Your task to perform on an android device: Open eBay Image 0: 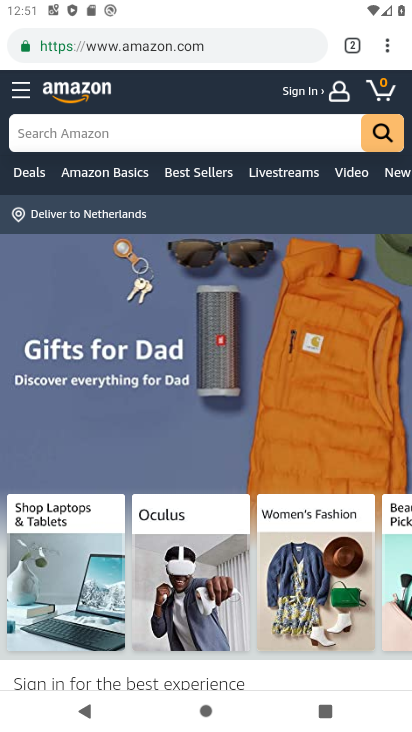
Step 0: press home button
Your task to perform on an android device: Open eBay Image 1: 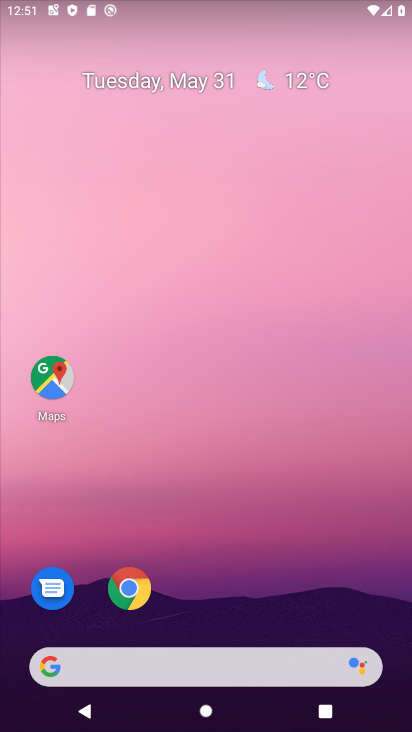
Step 1: click (127, 576)
Your task to perform on an android device: Open eBay Image 2: 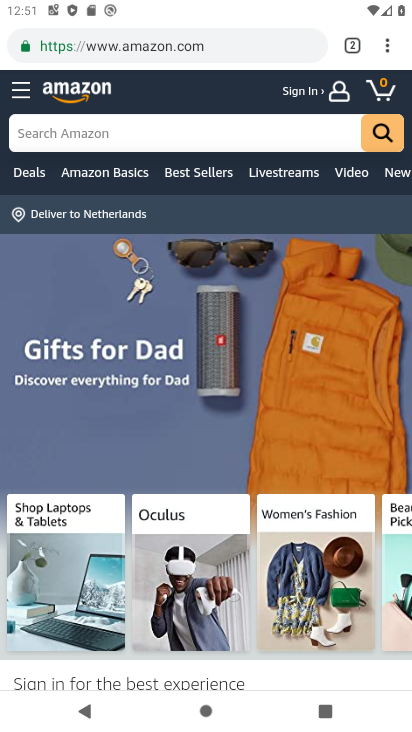
Step 2: press back button
Your task to perform on an android device: Open eBay Image 3: 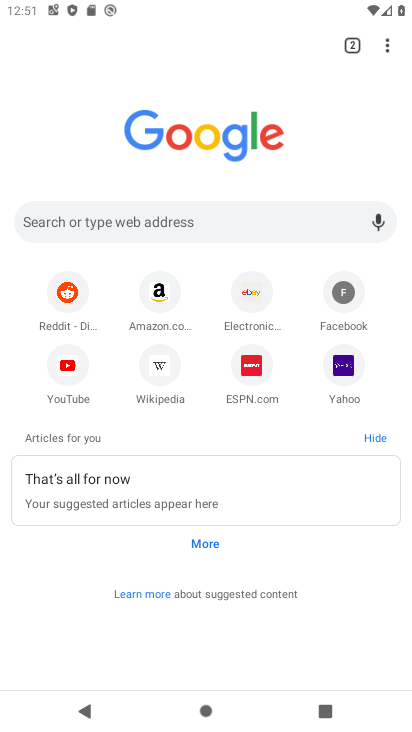
Step 3: click (255, 298)
Your task to perform on an android device: Open eBay Image 4: 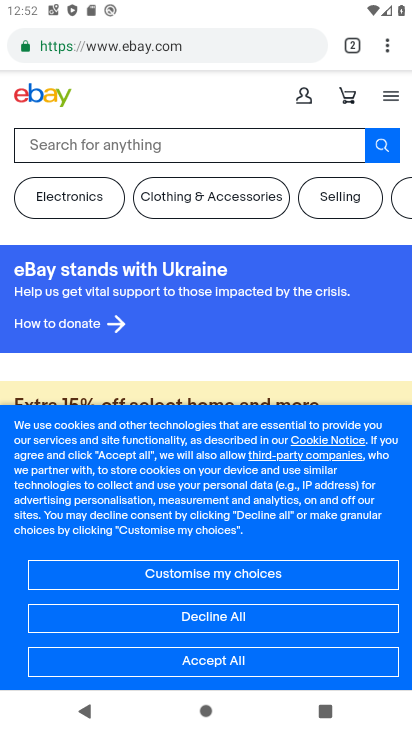
Step 4: task complete